Your task to perform on an android device: choose inbox layout in the gmail app Image 0: 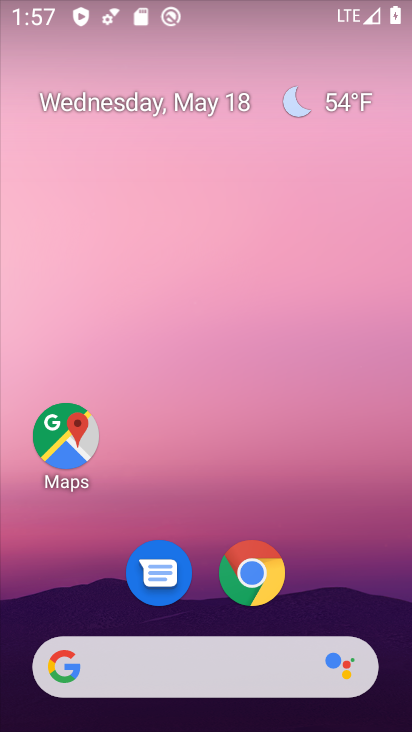
Step 0: drag from (169, 395) to (154, 194)
Your task to perform on an android device: choose inbox layout in the gmail app Image 1: 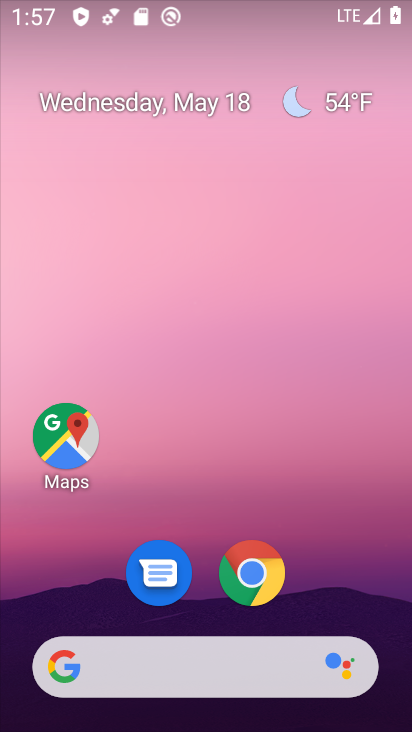
Step 1: drag from (224, 638) to (185, 64)
Your task to perform on an android device: choose inbox layout in the gmail app Image 2: 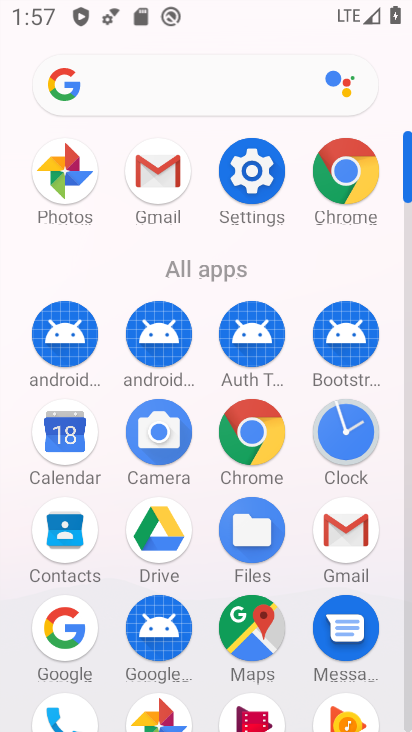
Step 2: click (156, 193)
Your task to perform on an android device: choose inbox layout in the gmail app Image 3: 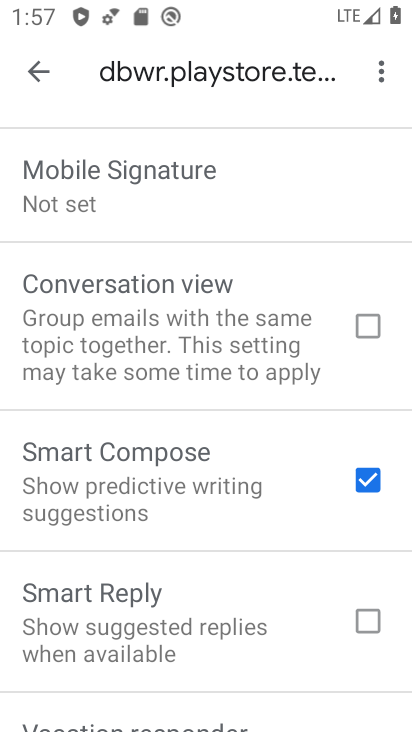
Step 3: drag from (178, 224) to (234, 669)
Your task to perform on an android device: choose inbox layout in the gmail app Image 4: 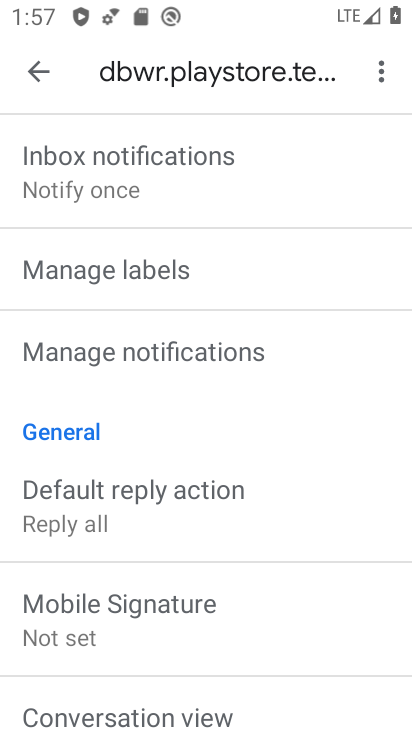
Step 4: drag from (150, 230) to (259, 616)
Your task to perform on an android device: choose inbox layout in the gmail app Image 5: 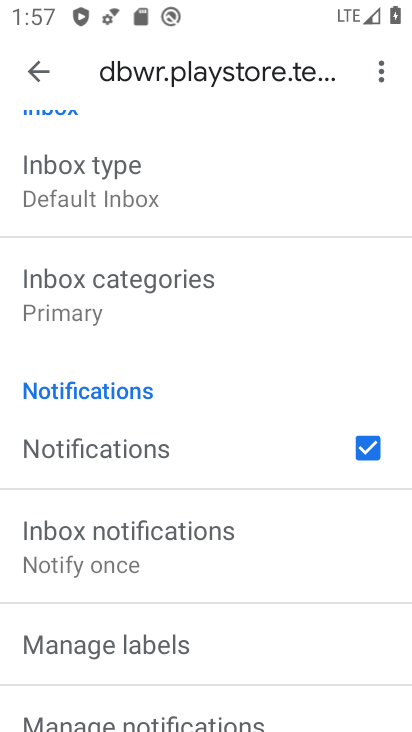
Step 5: click (149, 190)
Your task to perform on an android device: choose inbox layout in the gmail app Image 6: 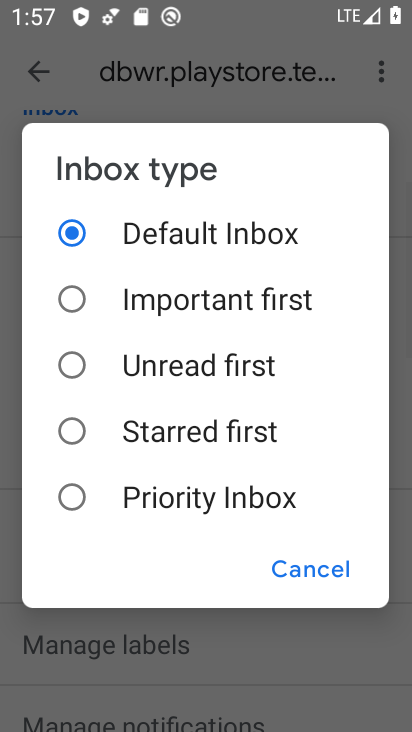
Step 6: click (155, 293)
Your task to perform on an android device: choose inbox layout in the gmail app Image 7: 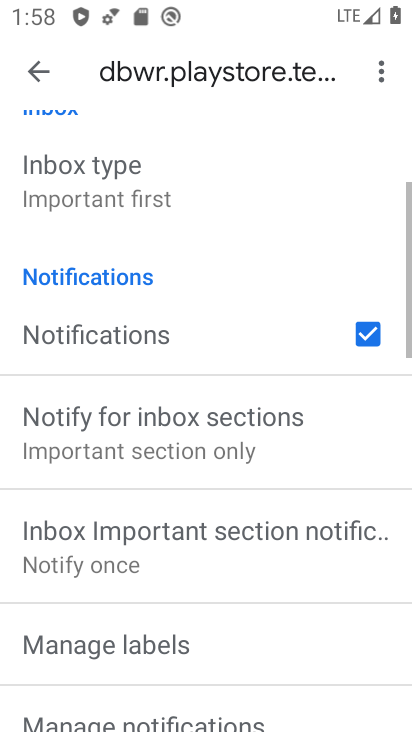
Step 7: task complete